Your task to perform on an android device: open the mobile data screen to see how much data has been used Image 0: 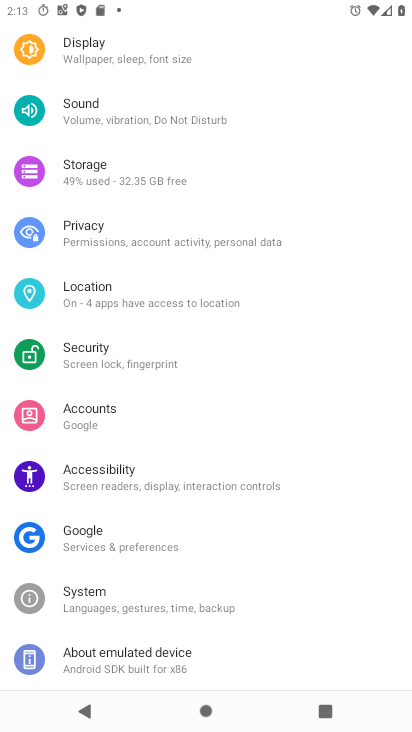
Step 0: drag from (204, 643) to (233, 144)
Your task to perform on an android device: open the mobile data screen to see how much data has been used Image 1: 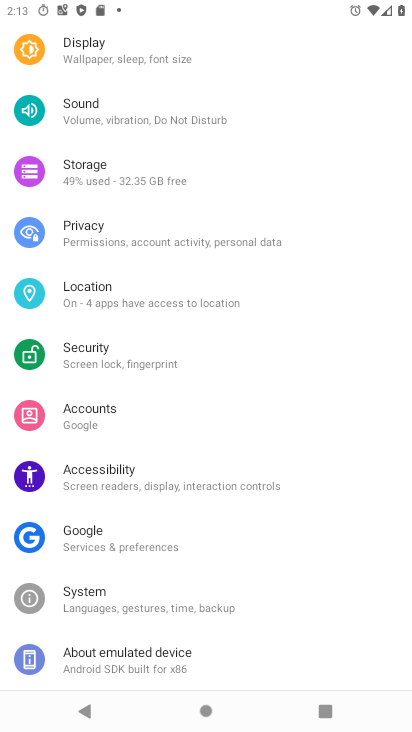
Step 1: press home button
Your task to perform on an android device: open the mobile data screen to see how much data has been used Image 2: 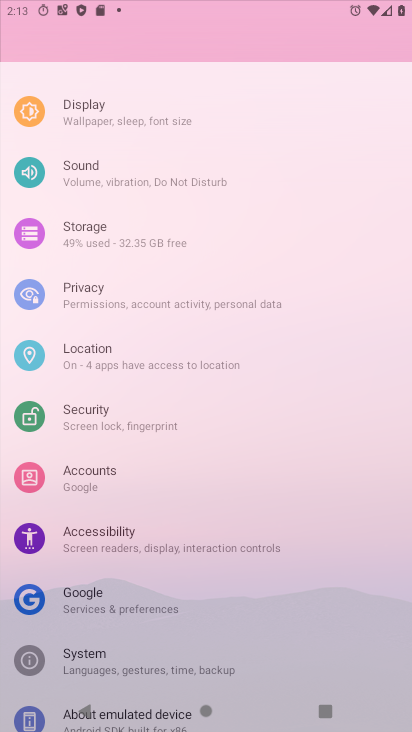
Step 2: drag from (259, 634) to (290, 127)
Your task to perform on an android device: open the mobile data screen to see how much data has been used Image 3: 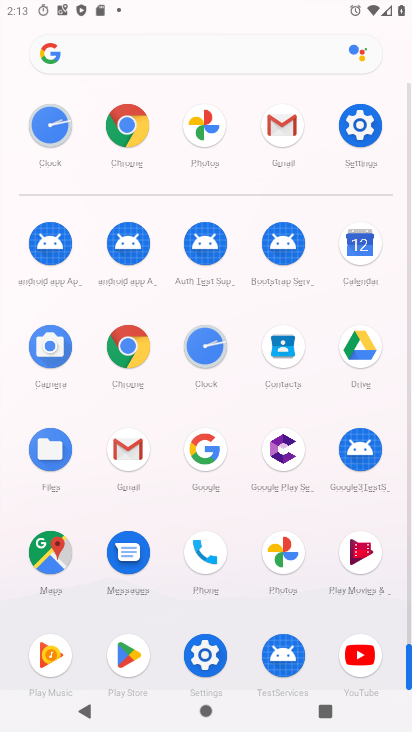
Step 3: click (355, 124)
Your task to perform on an android device: open the mobile data screen to see how much data has been used Image 4: 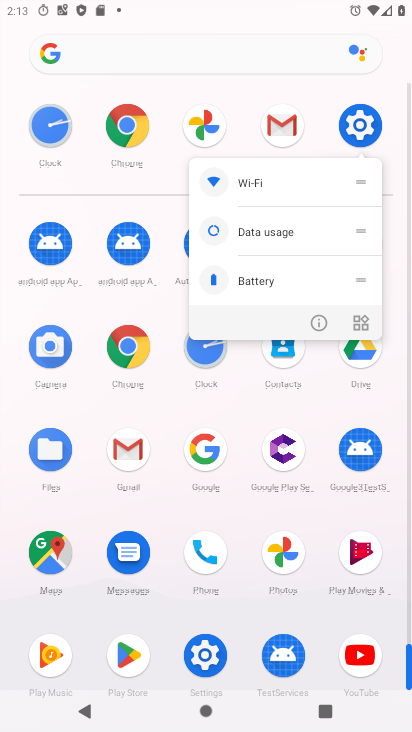
Step 4: click (310, 323)
Your task to perform on an android device: open the mobile data screen to see how much data has been used Image 5: 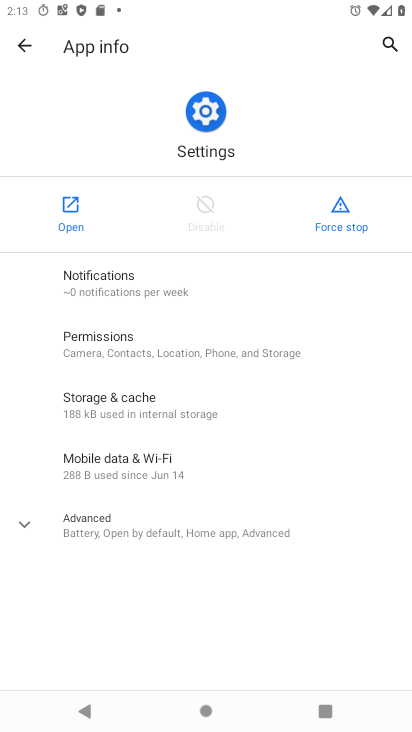
Step 5: click (71, 222)
Your task to perform on an android device: open the mobile data screen to see how much data has been used Image 6: 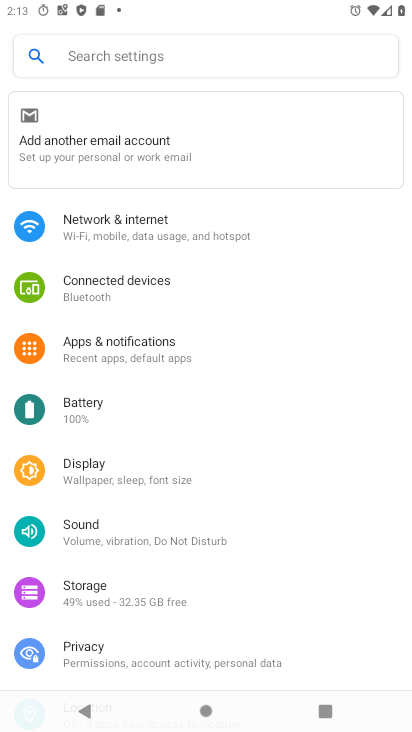
Step 6: click (161, 237)
Your task to perform on an android device: open the mobile data screen to see how much data has been used Image 7: 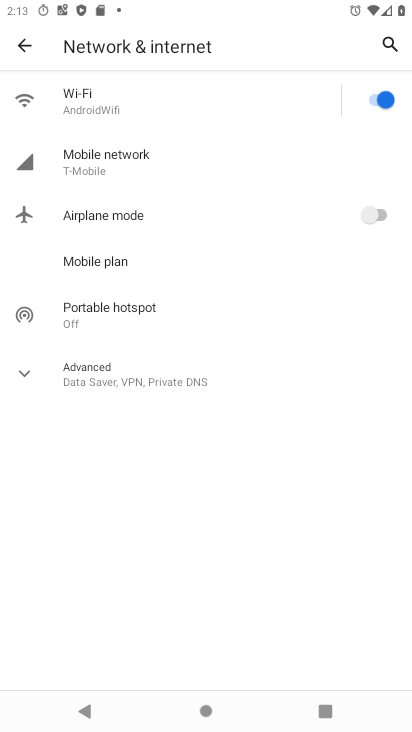
Step 7: click (128, 158)
Your task to perform on an android device: open the mobile data screen to see how much data has been used Image 8: 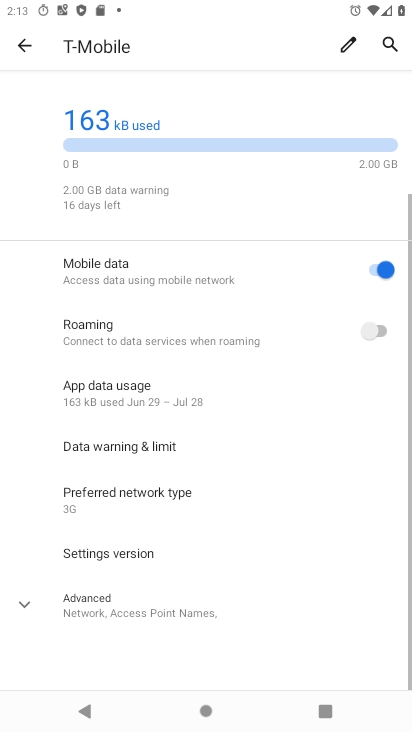
Step 8: task complete